Your task to perform on an android device: Open my contact list Image 0: 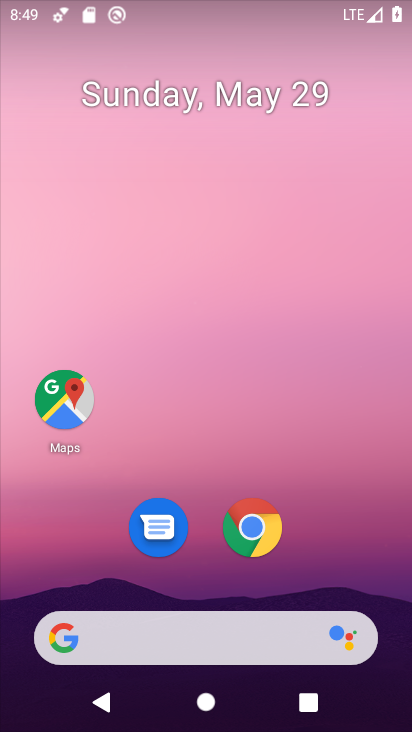
Step 0: drag from (201, 582) to (176, 103)
Your task to perform on an android device: Open my contact list Image 1: 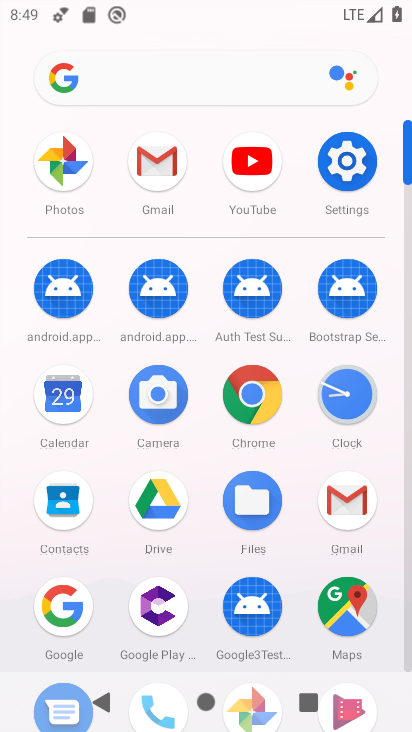
Step 1: click (61, 495)
Your task to perform on an android device: Open my contact list Image 2: 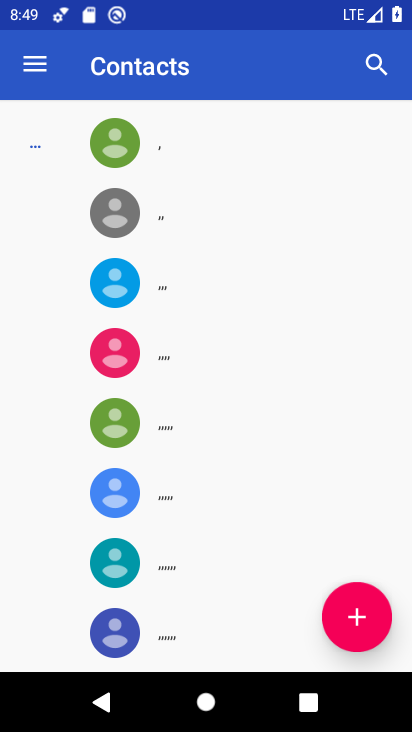
Step 2: task complete